Your task to perform on an android device: turn pop-ups on in chrome Image 0: 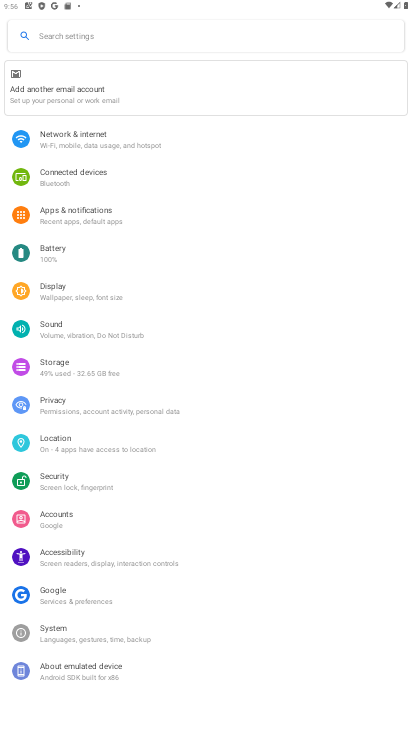
Step 0: press home button
Your task to perform on an android device: turn pop-ups on in chrome Image 1: 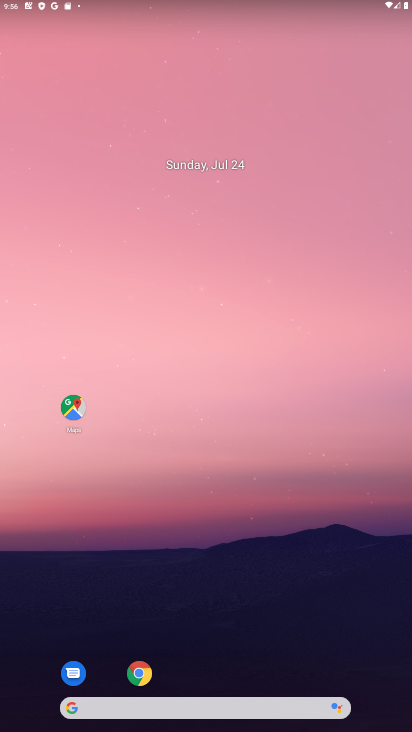
Step 1: click (135, 648)
Your task to perform on an android device: turn pop-ups on in chrome Image 2: 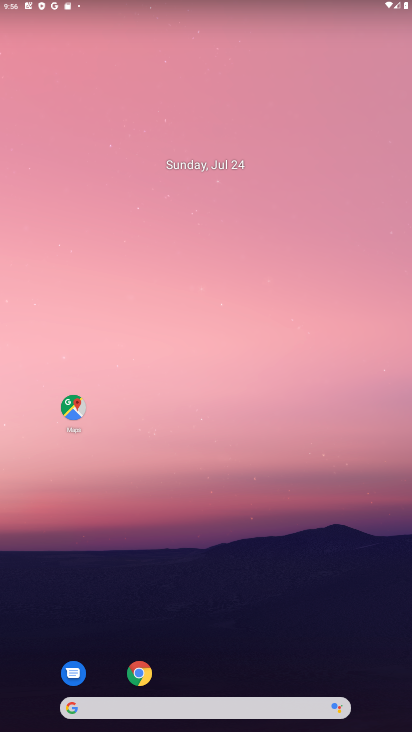
Step 2: click (133, 675)
Your task to perform on an android device: turn pop-ups on in chrome Image 3: 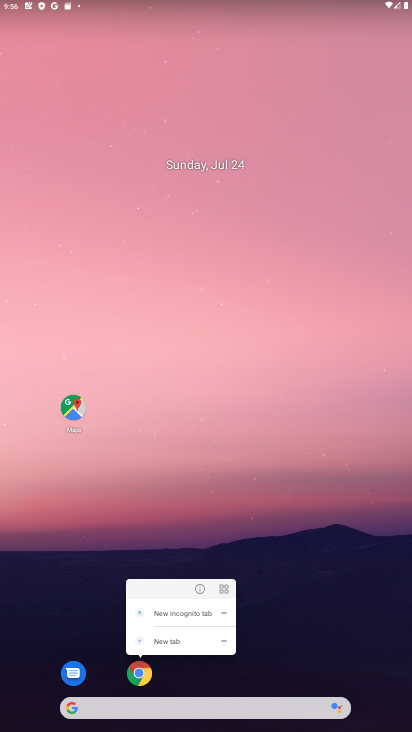
Step 3: click (134, 674)
Your task to perform on an android device: turn pop-ups on in chrome Image 4: 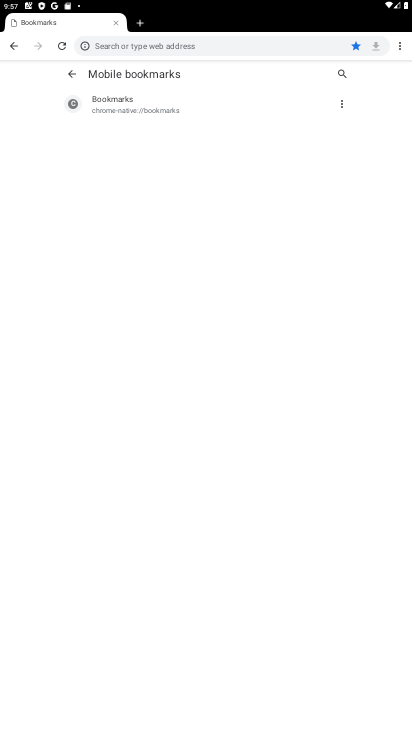
Step 4: click (399, 44)
Your task to perform on an android device: turn pop-ups on in chrome Image 5: 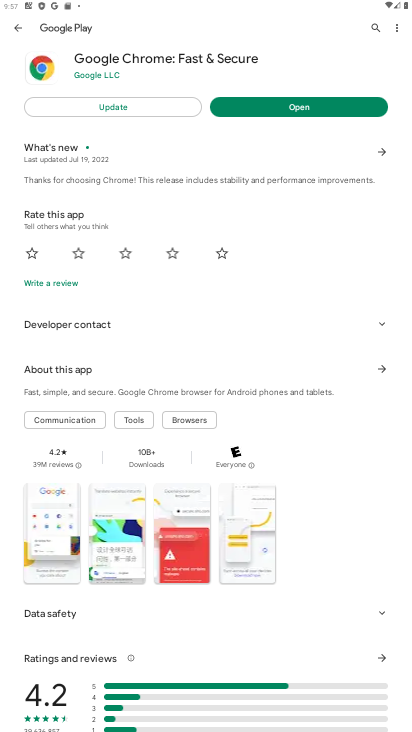
Step 5: click (10, 23)
Your task to perform on an android device: turn pop-ups on in chrome Image 6: 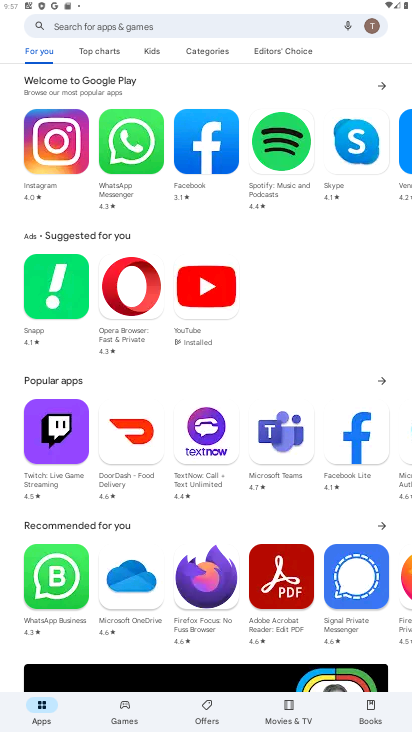
Step 6: task complete